Your task to perform on an android device: visit the assistant section in the google photos Image 0: 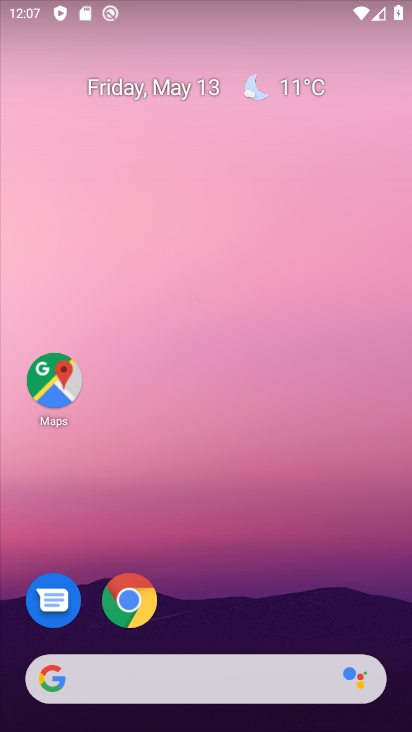
Step 0: drag from (252, 603) to (352, 125)
Your task to perform on an android device: visit the assistant section in the google photos Image 1: 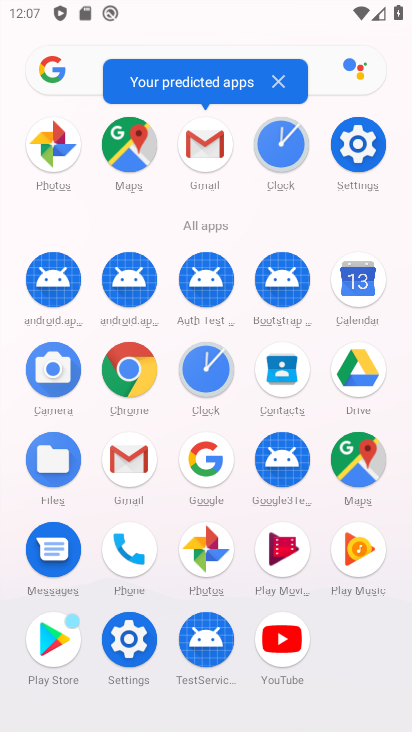
Step 1: click (199, 541)
Your task to perform on an android device: visit the assistant section in the google photos Image 2: 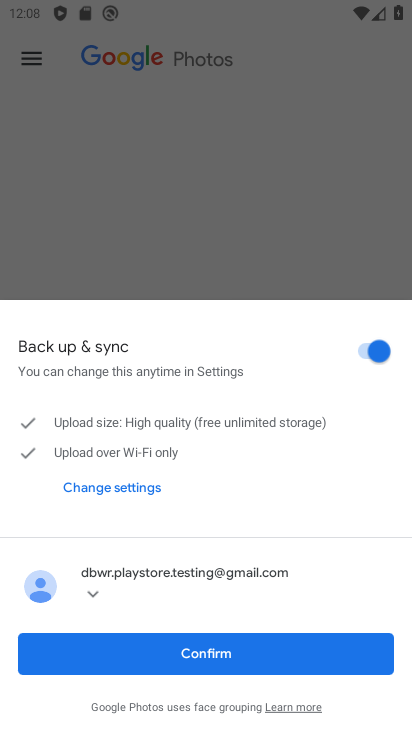
Step 2: click (304, 661)
Your task to perform on an android device: visit the assistant section in the google photos Image 3: 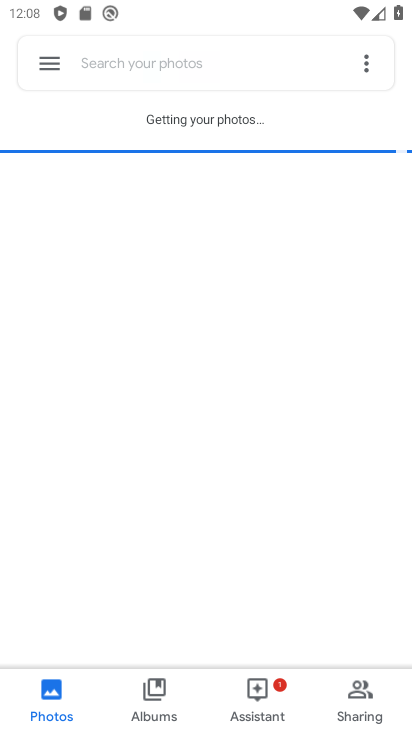
Step 3: click (250, 700)
Your task to perform on an android device: visit the assistant section in the google photos Image 4: 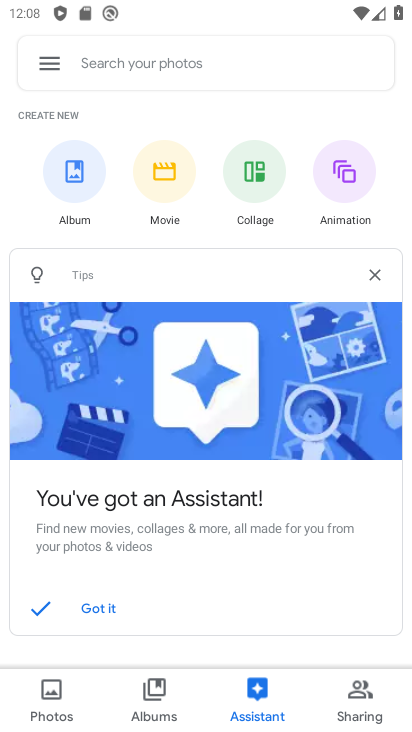
Step 4: task complete